Your task to perform on an android device: Go to eBay Image 0: 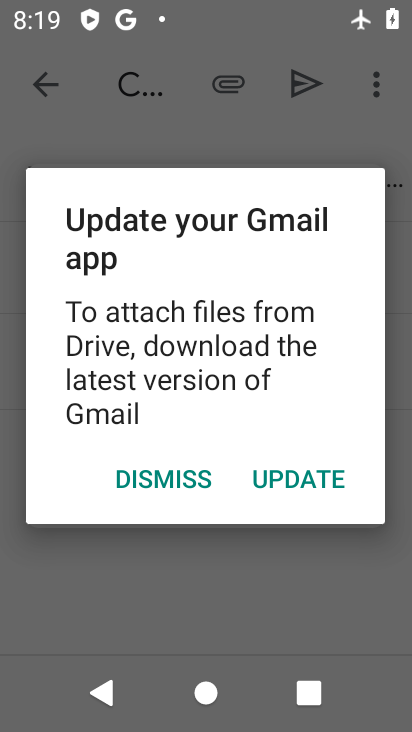
Step 0: press home button
Your task to perform on an android device: Go to eBay Image 1: 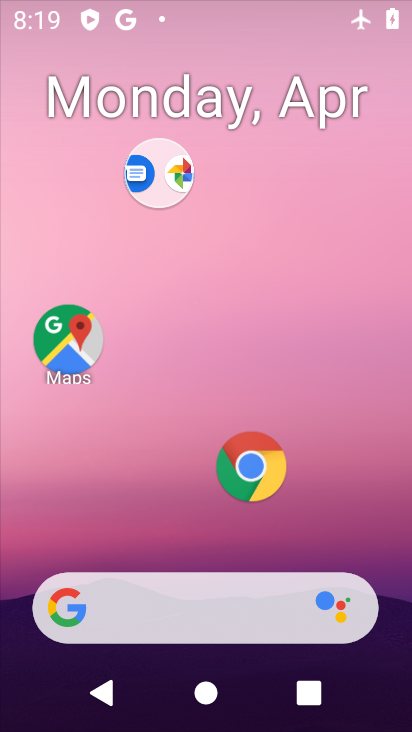
Step 1: drag from (194, 541) to (226, 176)
Your task to perform on an android device: Go to eBay Image 2: 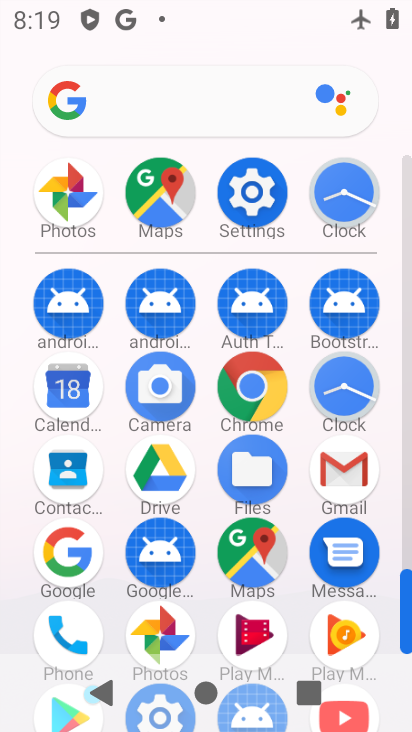
Step 2: click (259, 398)
Your task to perform on an android device: Go to eBay Image 3: 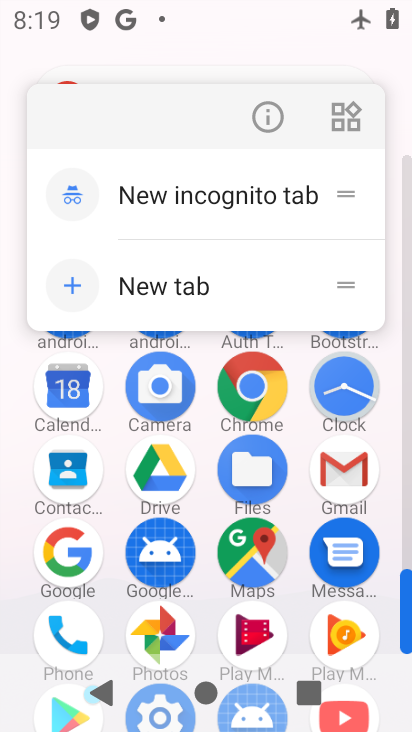
Step 3: click (280, 121)
Your task to perform on an android device: Go to eBay Image 4: 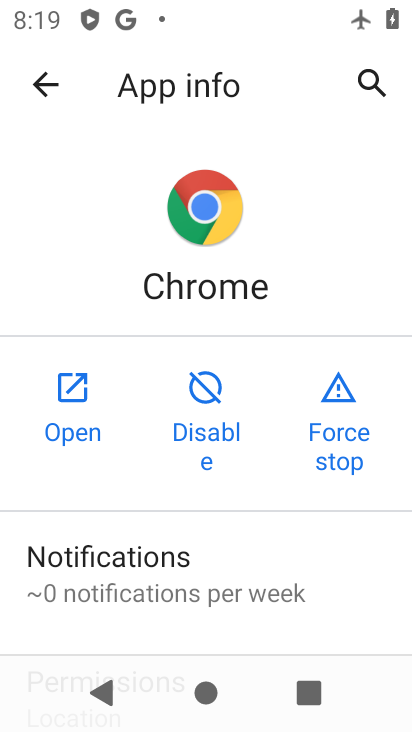
Step 4: click (65, 389)
Your task to perform on an android device: Go to eBay Image 5: 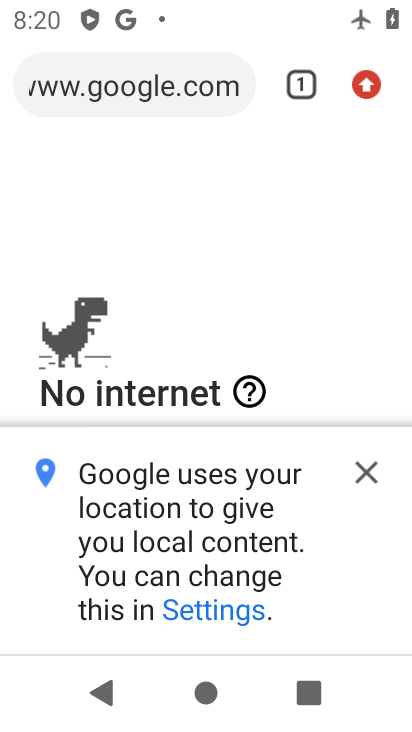
Step 5: click (362, 471)
Your task to perform on an android device: Go to eBay Image 6: 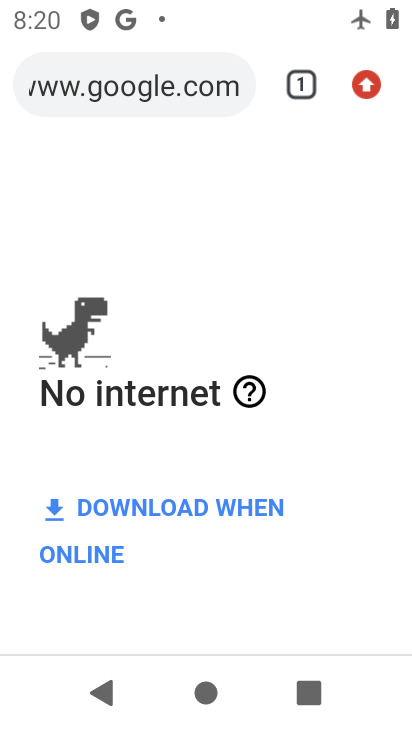
Step 6: task complete